Your task to perform on an android device: Show me popular videos on Youtube Image 0: 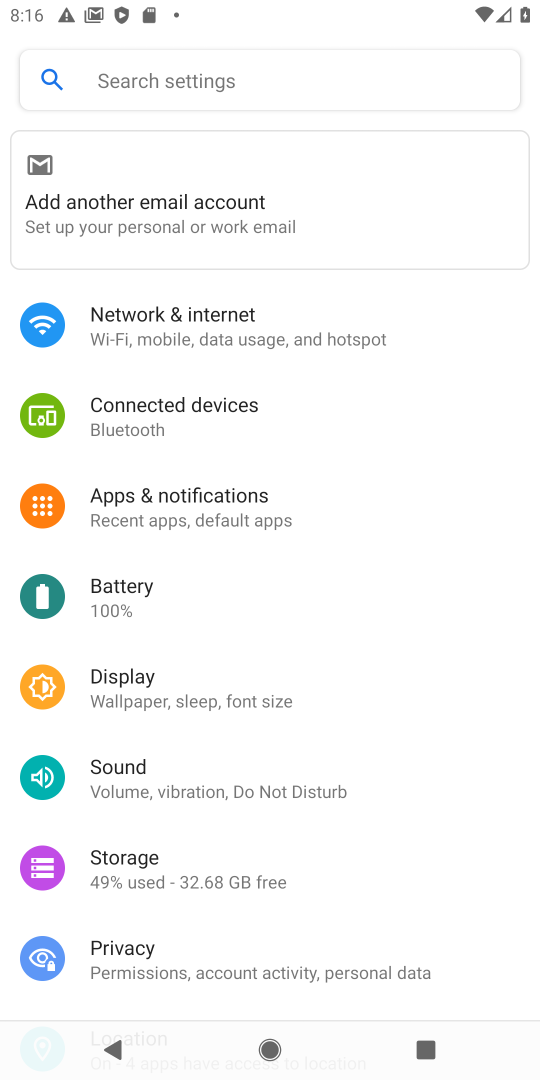
Step 0: press home button
Your task to perform on an android device: Show me popular videos on Youtube Image 1: 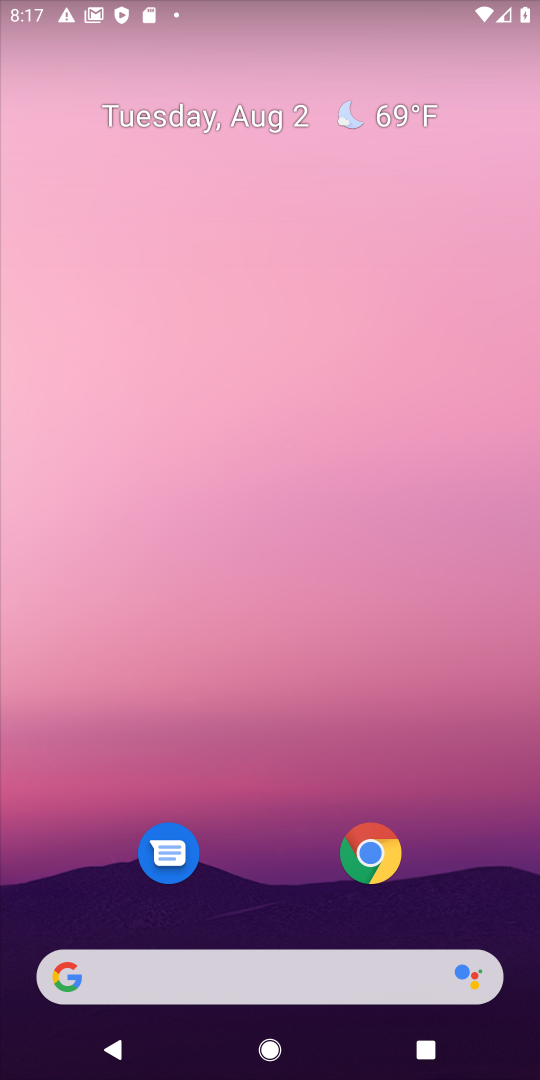
Step 1: drag from (286, 823) to (157, 96)
Your task to perform on an android device: Show me popular videos on Youtube Image 2: 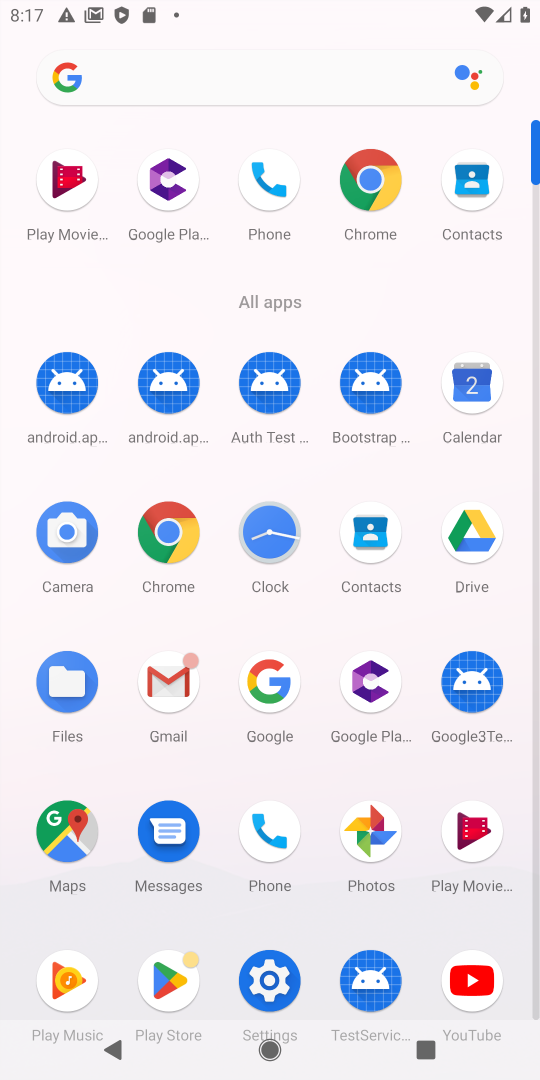
Step 2: click (485, 977)
Your task to perform on an android device: Show me popular videos on Youtube Image 3: 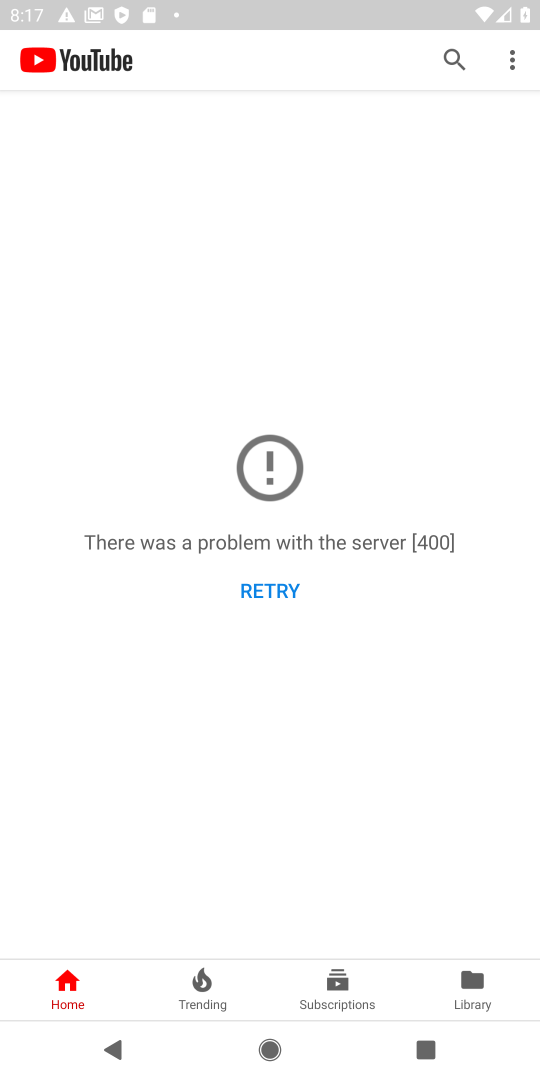
Step 3: click (282, 597)
Your task to perform on an android device: Show me popular videos on Youtube Image 4: 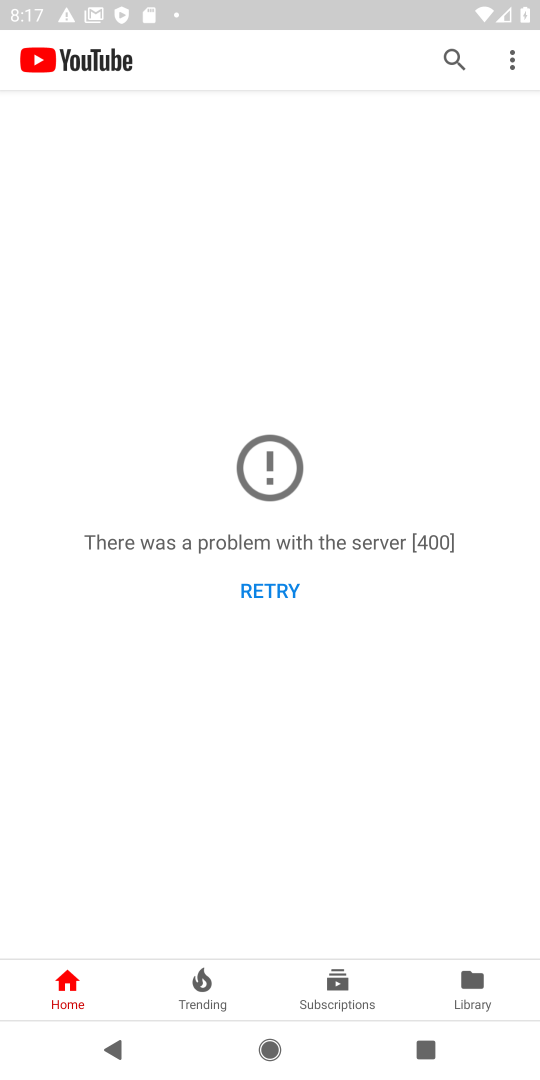
Step 4: click (203, 996)
Your task to perform on an android device: Show me popular videos on Youtube Image 5: 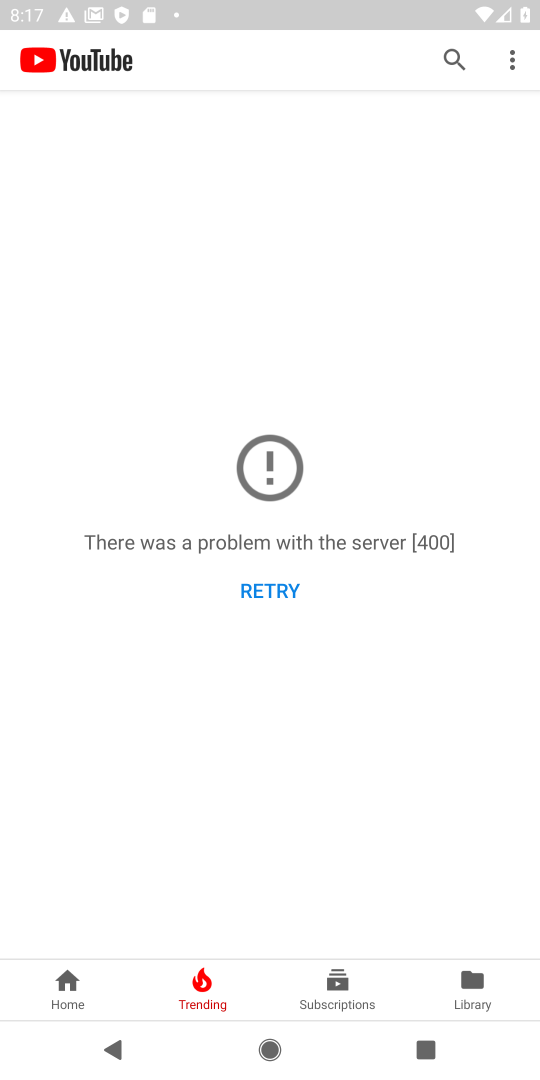
Step 5: click (203, 996)
Your task to perform on an android device: Show me popular videos on Youtube Image 6: 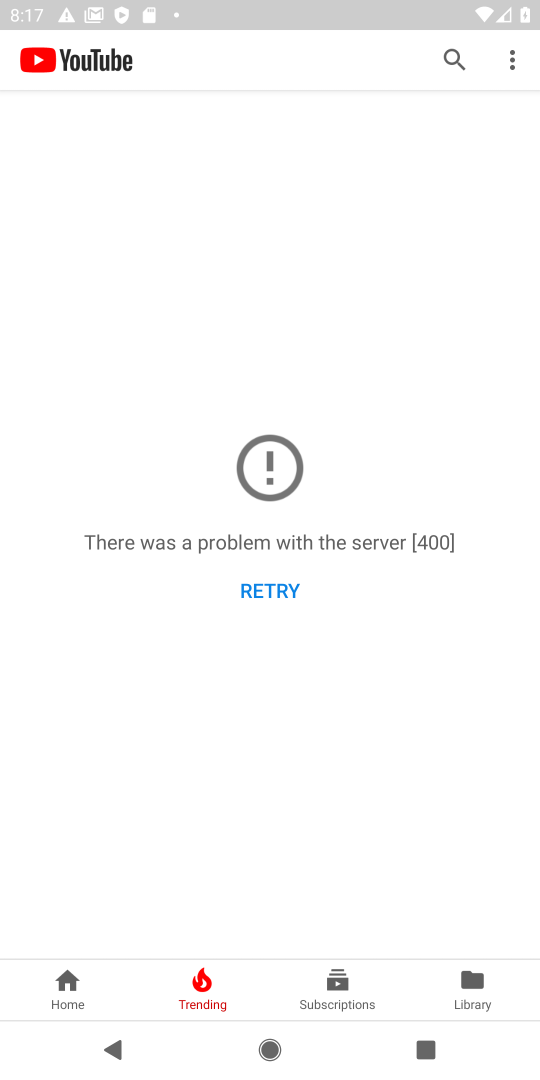
Step 6: task complete